Your task to perform on an android device: turn off notifications settings in the gmail app Image 0: 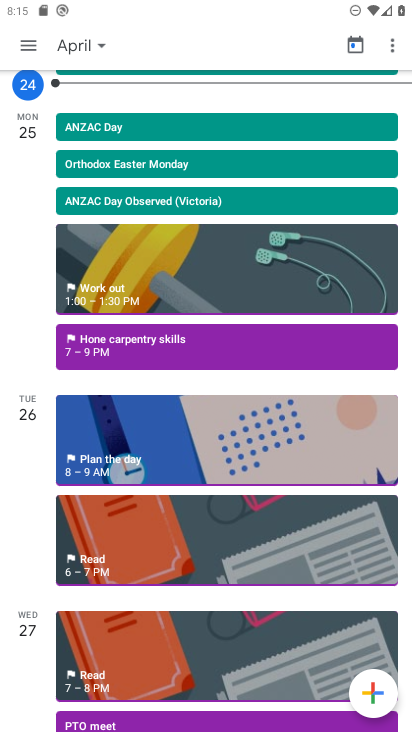
Step 0: press home button
Your task to perform on an android device: turn off notifications settings in the gmail app Image 1: 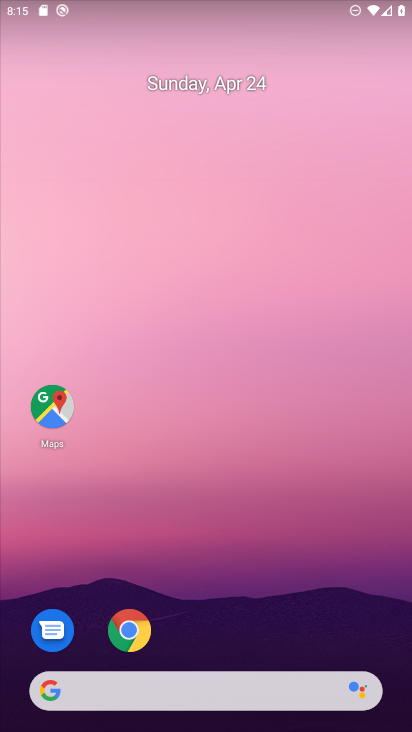
Step 1: drag from (277, 593) to (312, 19)
Your task to perform on an android device: turn off notifications settings in the gmail app Image 2: 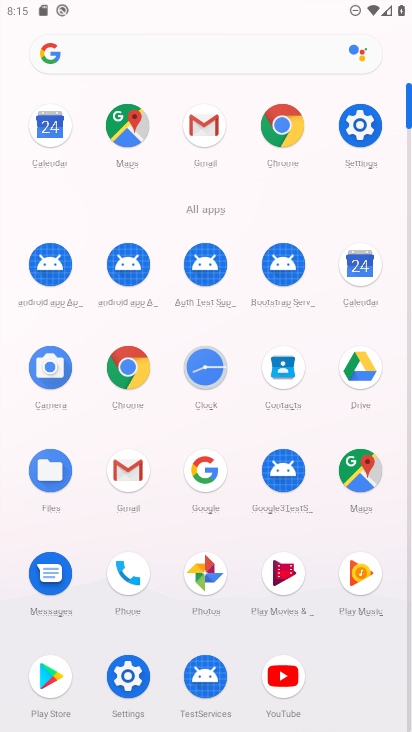
Step 2: click (210, 118)
Your task to perform on an android device: turn off notifications settings in the gmail app Image 3: 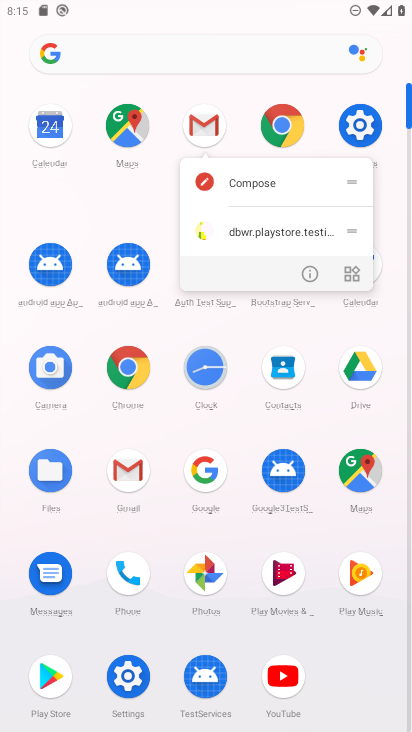
Step 3: click (310, 271)
Your task to perform on an android device: turn off notifications settings in the gmail app Image 4: 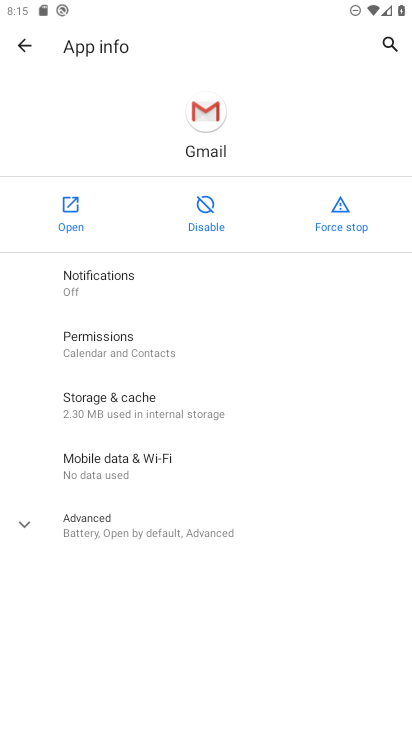
Step 4: click (110, 272)
Your task to perform on an android device: turn off notifications settings in the gmail app Image 5: 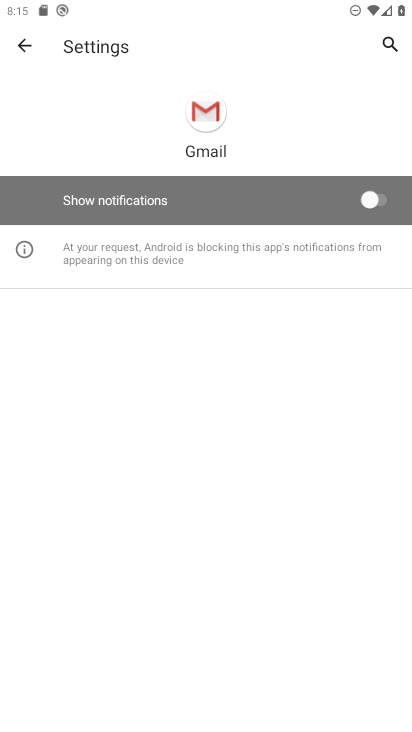
Step 5: task complete